Your task to perform on an android device: change alarm snooze length Image 0: 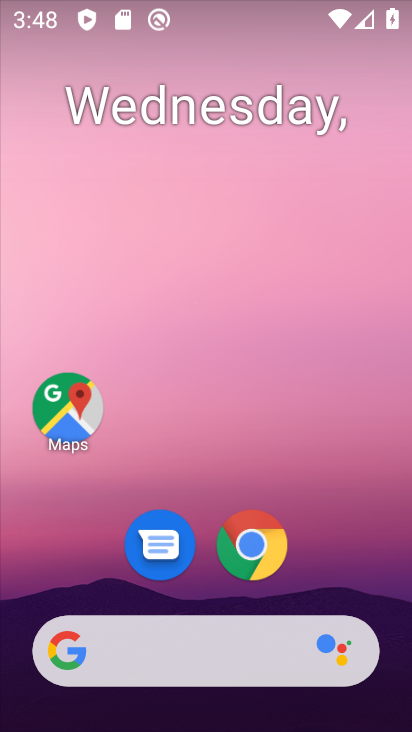
Step 0: drag from (326, 580) to (383, 0)
Your task to perform on an android device: change alarm snooze length Image 1: 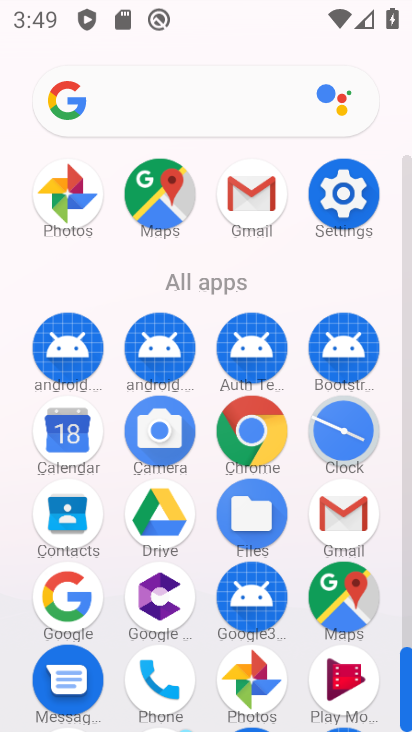
Step 1: click (342, 432)
Your task to perform on an android device: change alarm snooze length Image 2: 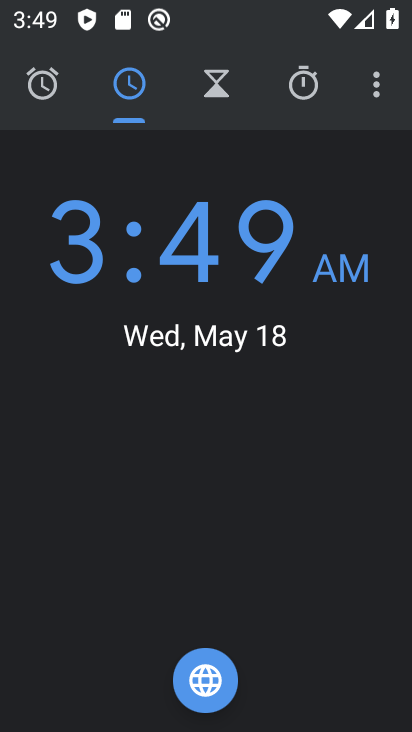
Step 2: click (379, 85)
Your task to perform on an android device: change alarm snooze length Image 3: 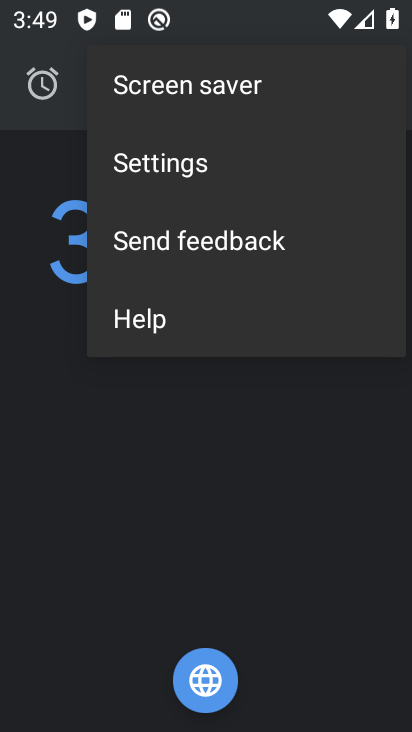
Step 3: click (197, 169)
Your task to perform on an android device: change alarm snooze length Image 4: 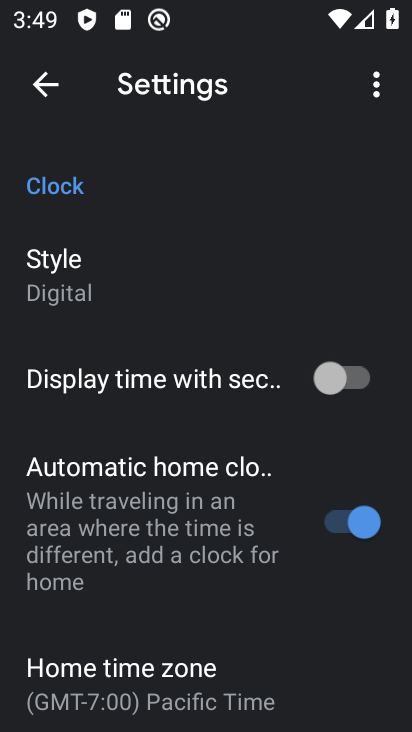
Step 4: drag from (140, 393) to (178, 303)
Your task to perform on an android device: change alarm snooze length Image 5: 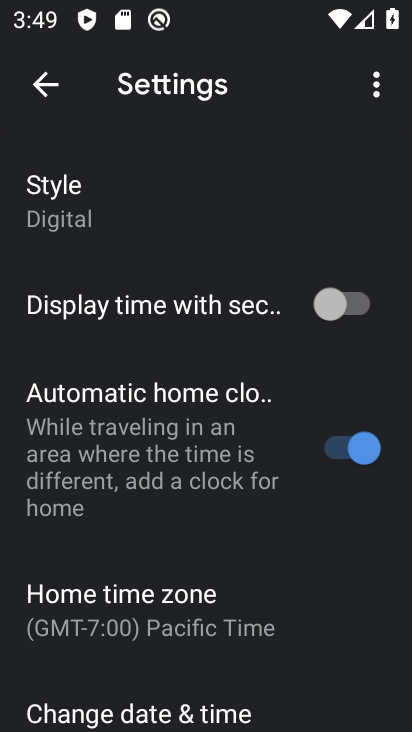
Step 5: drag from (134, 505) to (185, 398)
Your task to perform on an android device: change alarm snooze length Image 6: 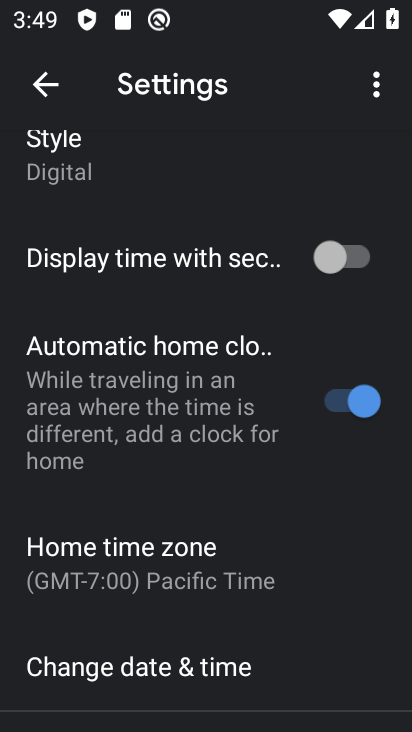
Step 6: drag from (130, 515) to (152, 399)
Your task to perform on an android device: change alarm snooze length Image 7: 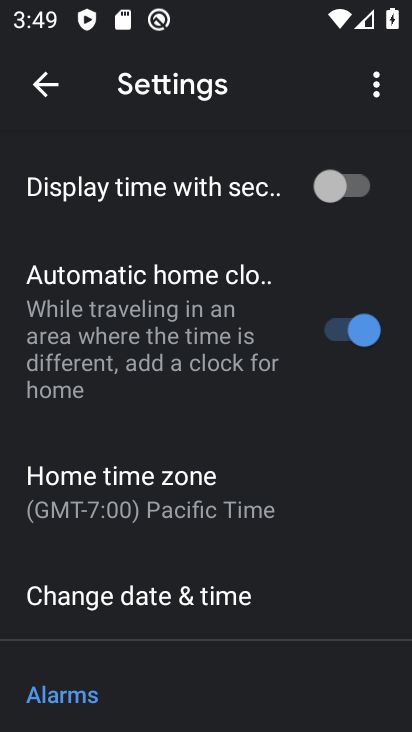
Step 7: drag from (135, 539) to (164, 413)
Your task to perform on an android device: change alarm snooze length Image 8: 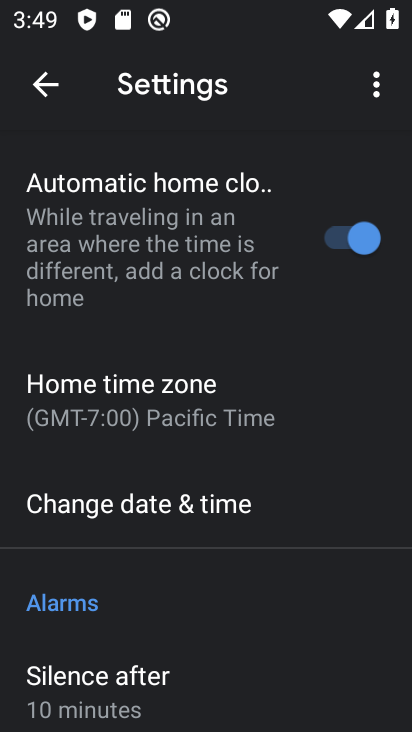
Step 8: drag from (137, 626) to (179, 487)
Your task to perform on an android device: change alarm snooze length Image 9: 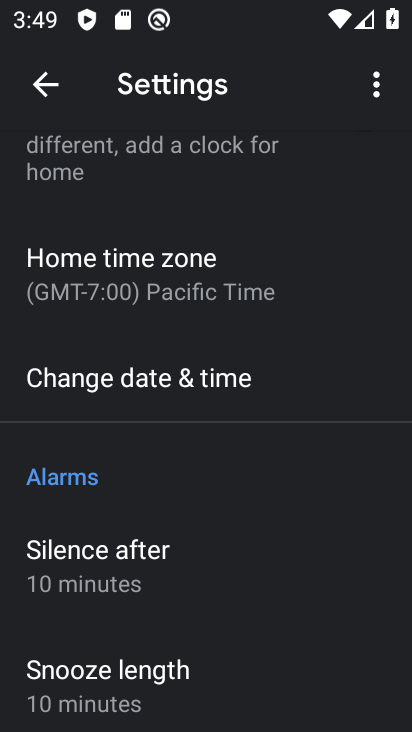
Step 9: click (158, 674)
Your task to perform on an android device: change alarm snooze length Image 10: 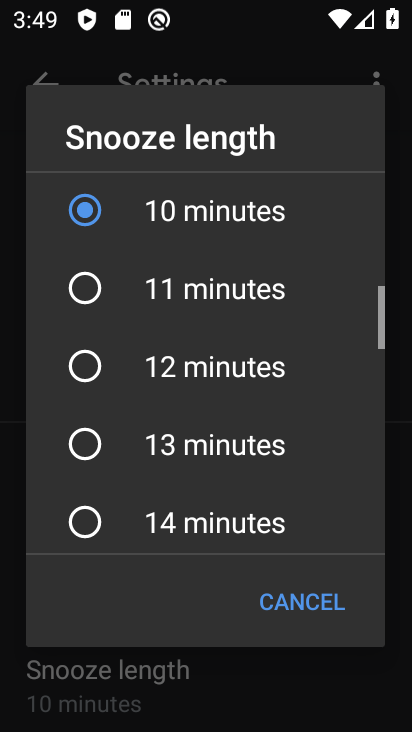
Step 10: drag from (191, 457) to (220, 239)
Your task to perform on an android device: change alarm snooze length Image 11: 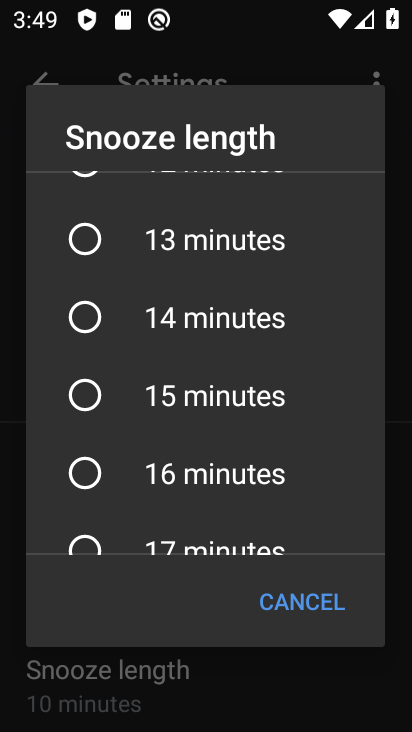
Step 11: drag from (172, 452) to (170, 268)
Your task to perform on an android device: change alarm snooze length Image 12: 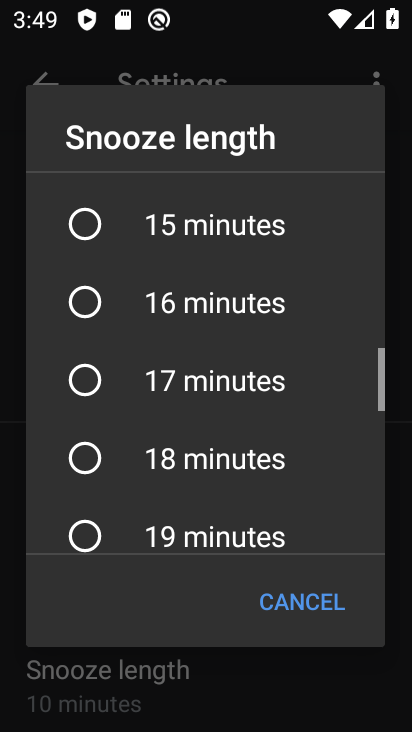
Step 12: drag from (189, 531) to (188, 278)
Your task to perform on an android device: change alarm snooze length Image 13: 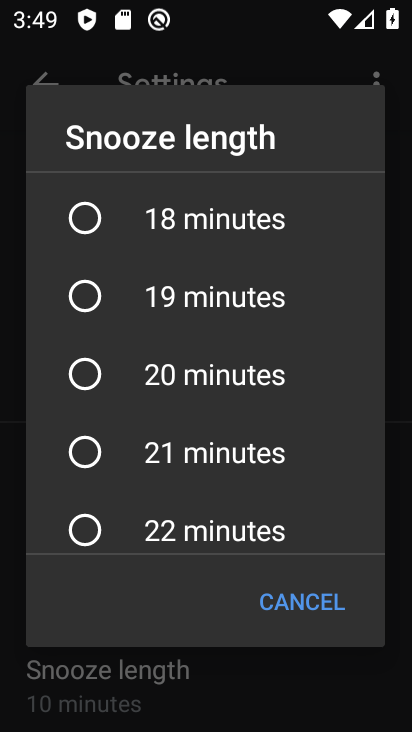
Step 13: drag from (183, 484) to (217, 219)
Your task to perform on an android device: change alarm snooze length Image 14: 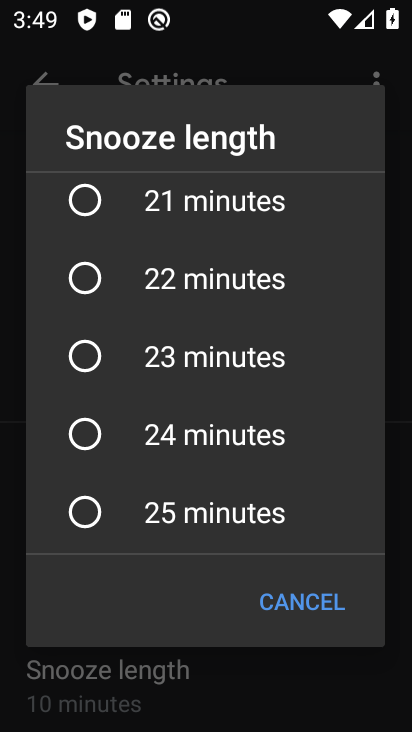
Step 14: click (102, 508)
Your task to perform on an android device: change alarm snooze length Image 15: 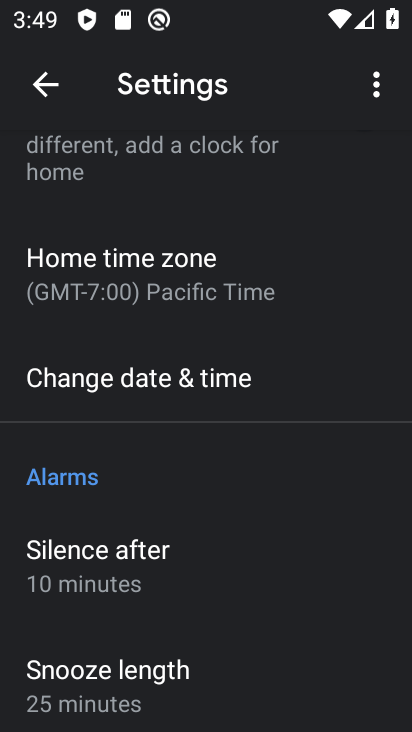
Step 15: task complete